Your task to perform on an android device: Open calendar and show me the third week of next month Image 0: 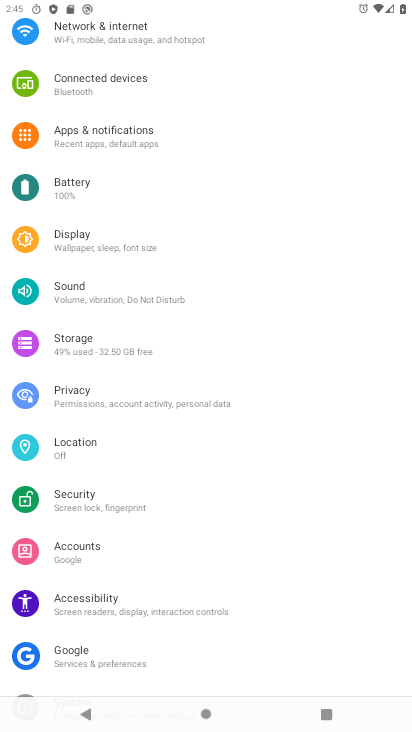
Step 0: press home button
Your task to perform on an android device: Open calendar and show me the third week of next month Image 1: 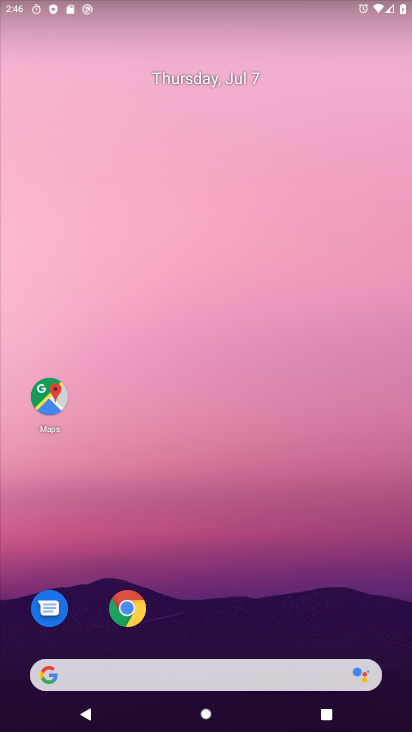
Step 1: drag from (242, 708) to (239, 70)
Your task to perform on an android device: Open calendar and show me the third week of next month Image 2: 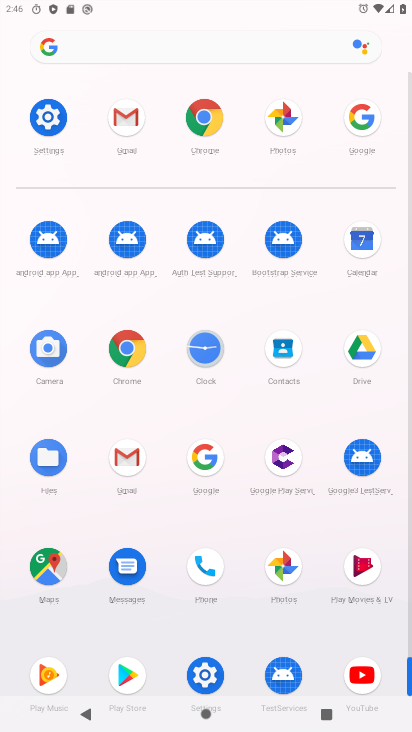
Step 2: click (368, 240)
Your task to perform on an android device: Open calendar and show me the third week of next month Image 3: 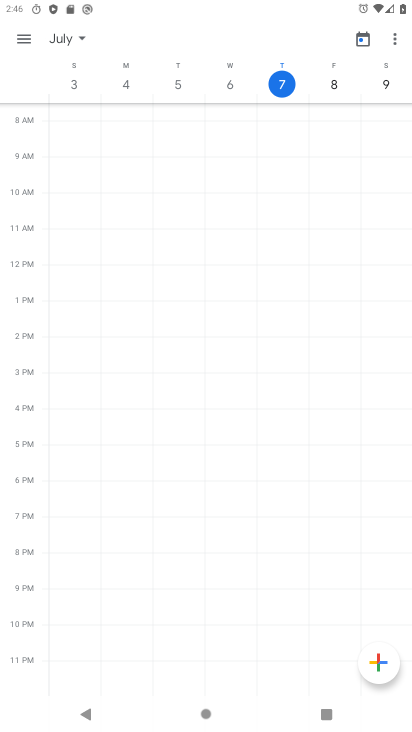
Step 3: click (79, 38)
Your task to perform on an android device: Open calendar and show me the third week of next month Image 4: 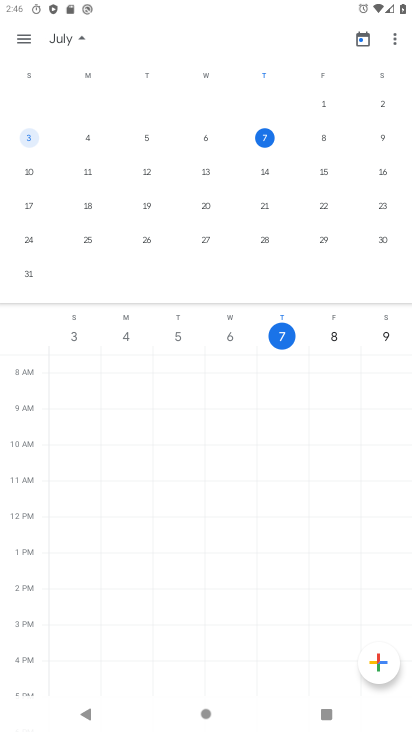
Step 4: drag from (362, 198) to (100, 197)
Your task to perform on an android device: Open calendar and show me the third week of next month Image 5: 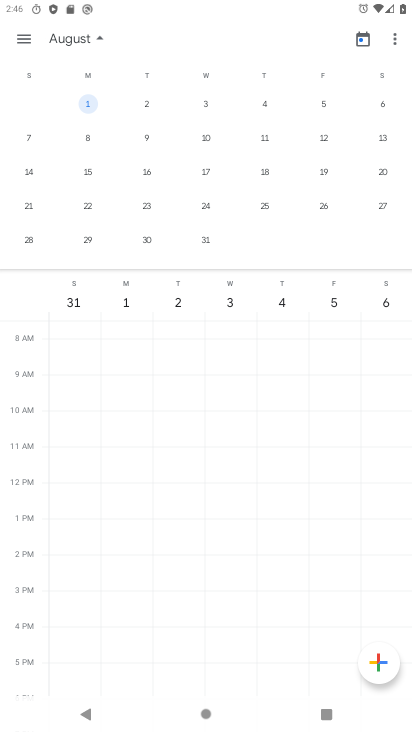
Step 5: click (88, 167)
Your task to perform on an android device: Open calendar and show me the third week of next month Image 6: 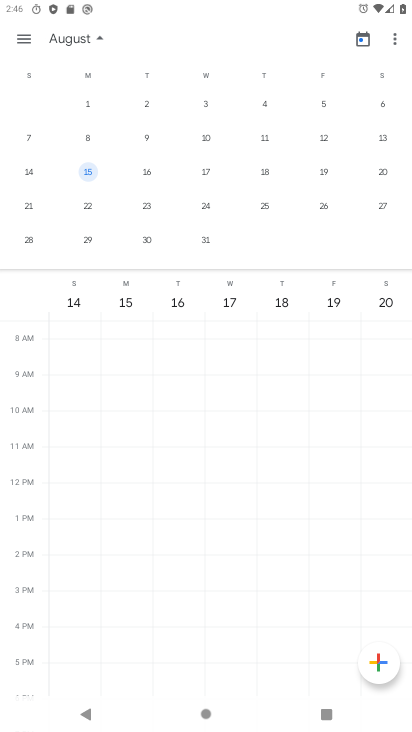
Step 6: click (25, 38)
Your task to perform on an android device: Open calendar and show me the third week of next month Image 7: 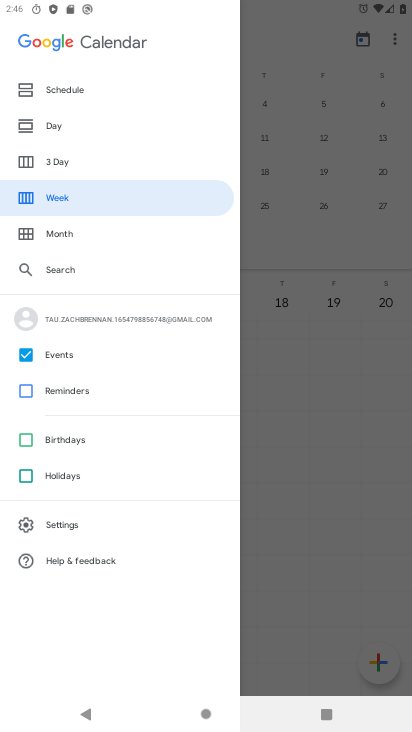
Step 7: click (66, 193)
Your task to perform on an android device: Open calendar and show me the third week of next month Image 8: 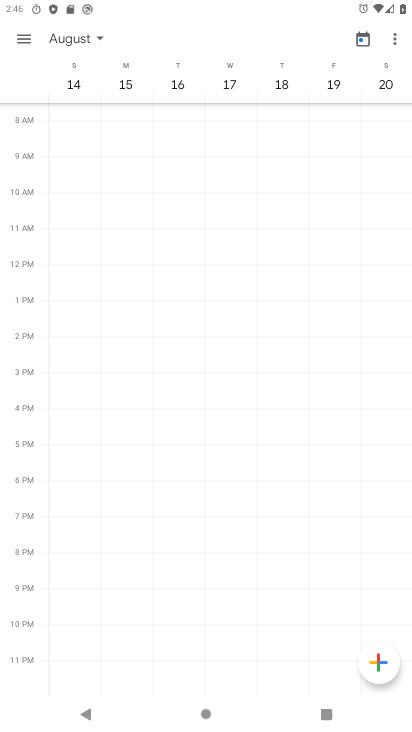
Step 8: task complete